Your task to perform on an android device: Add bose soundlink mini to the cart on ebay.com Image 0: 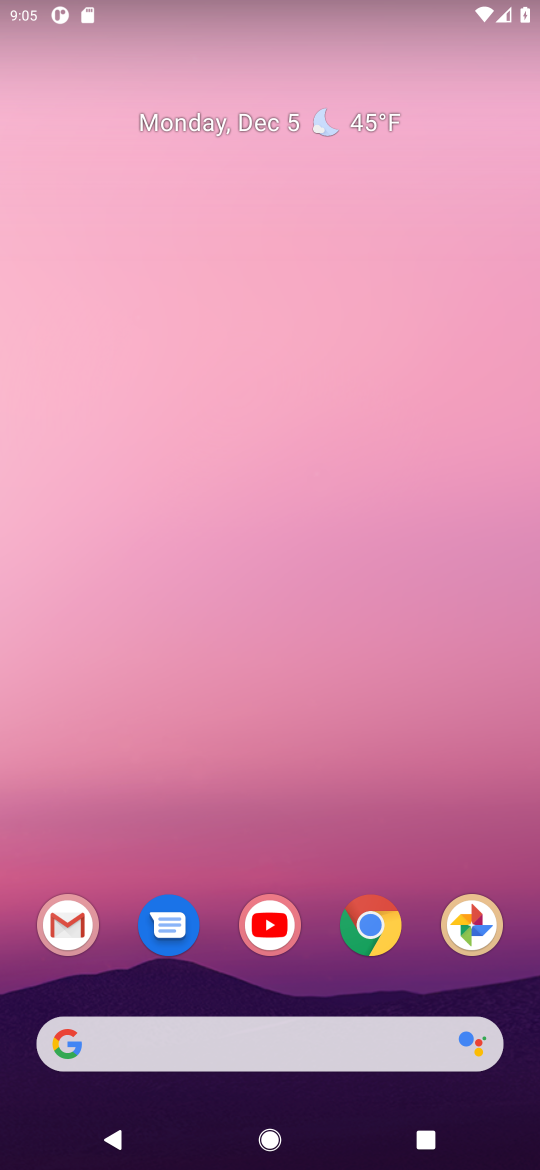
Step 0: click (369, 923)
Your task to perform on an android device: Add bose soundlink mini to the cart on ebay.com Image 1: 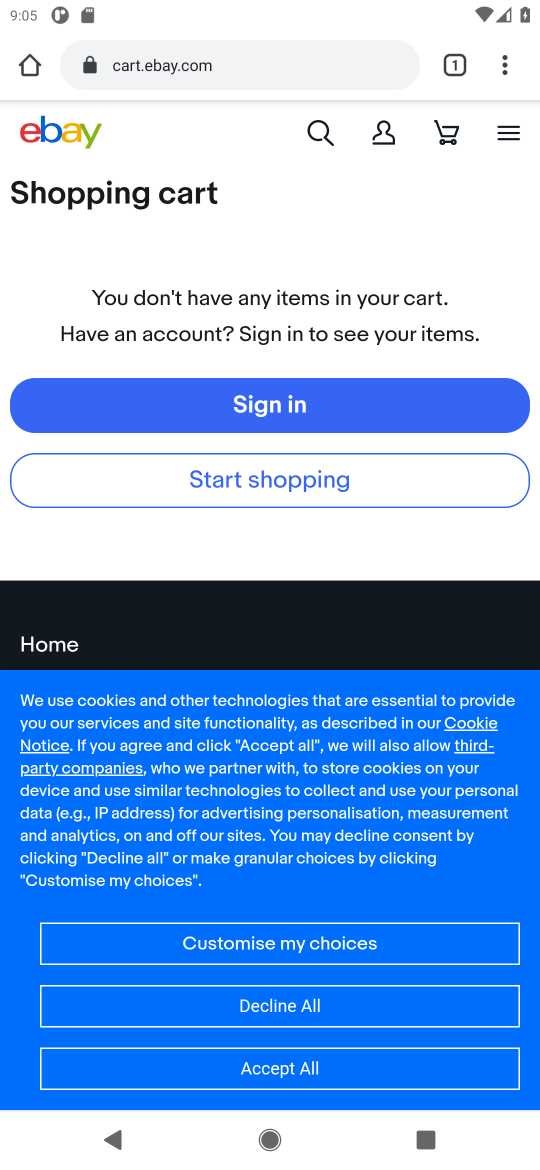
Step 1: click (318, 134)
Your task to perform on an android device: Add bose soundlink mini to the cart on ebay.com Image 2: 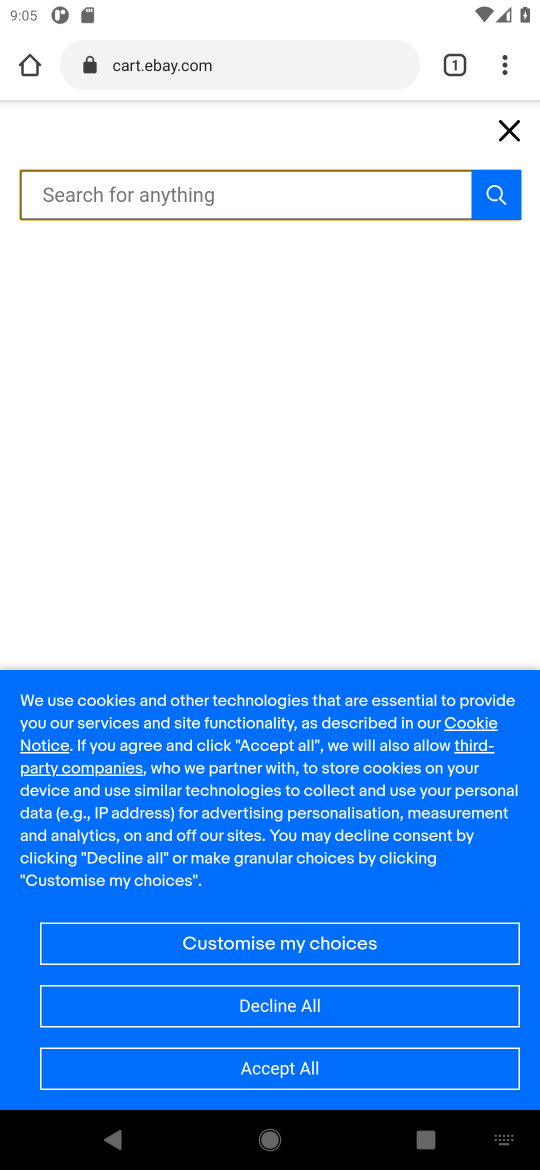
Step 2: type "bose soundlink mini"
Your task to perform on an android device: Add bose soundlink mini to the cart on ebay.com Image 3: 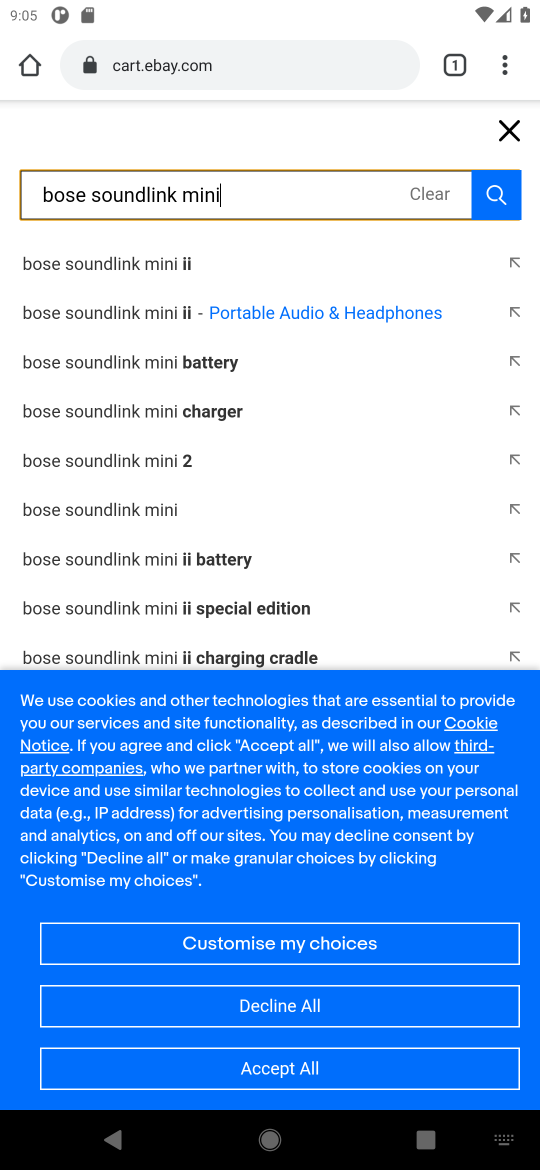
Step 3: click (112, 525)
Your task to perform on an android device: Add bose soundlink mini to the cart on ebay.com Image 4: 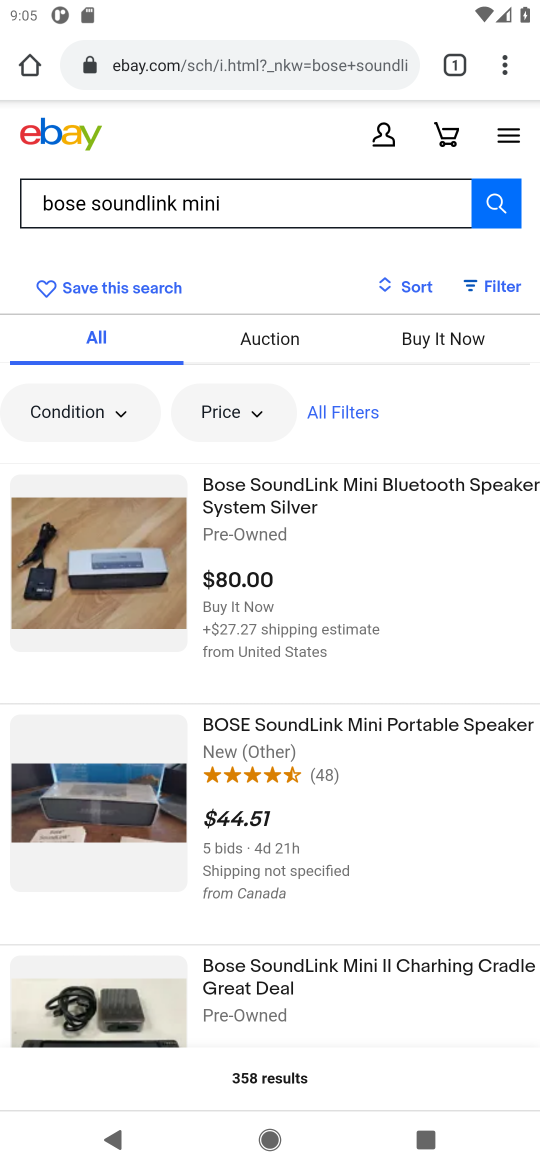
Step 4: click (224, 517)
Your task to perform on an android device: Add bose soundlink mini to the cart on ebay.com Image 5: 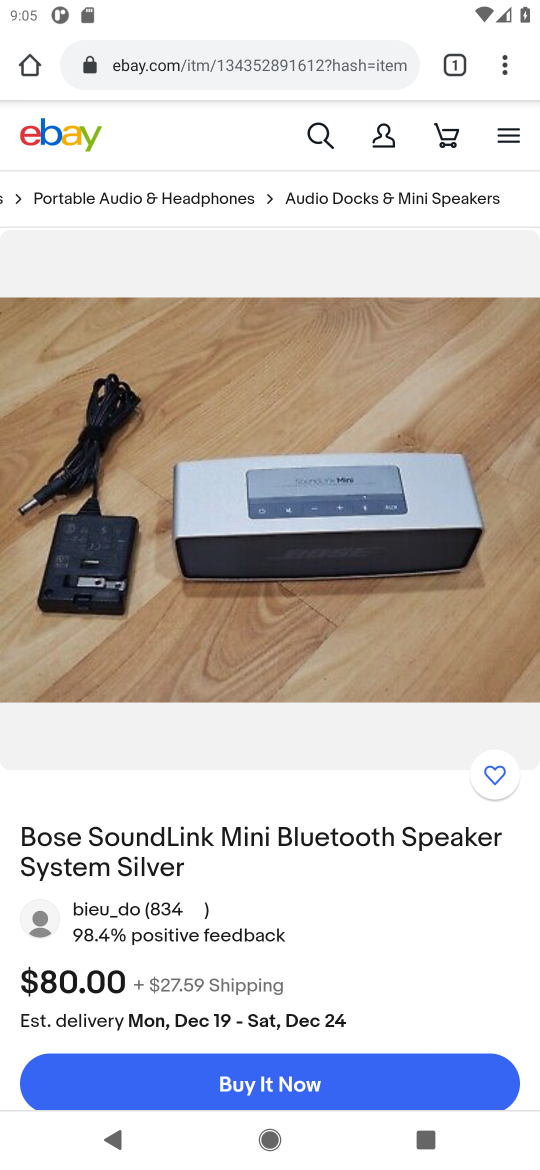
Step 5: drag from (272, 835) to (227, 455)
Your task to perform on an android device: Add bose soundlink mini to the cart on ebay.com Image 6: 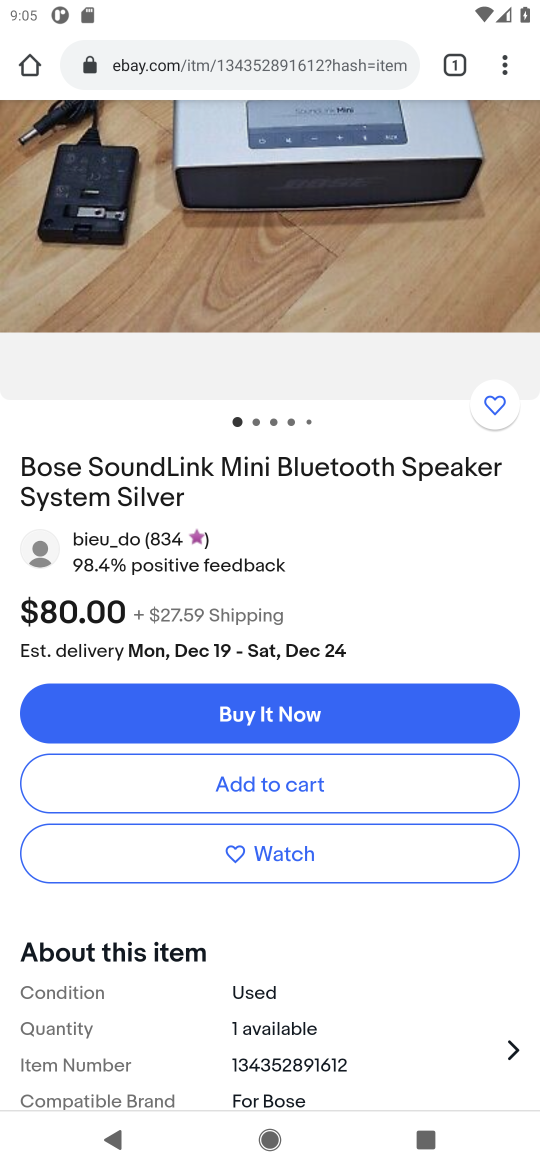
Step 6: click (252, 777)
Your task to perform on an android device: Add bose soundlink mini to the cart on ebay.com Image 7: 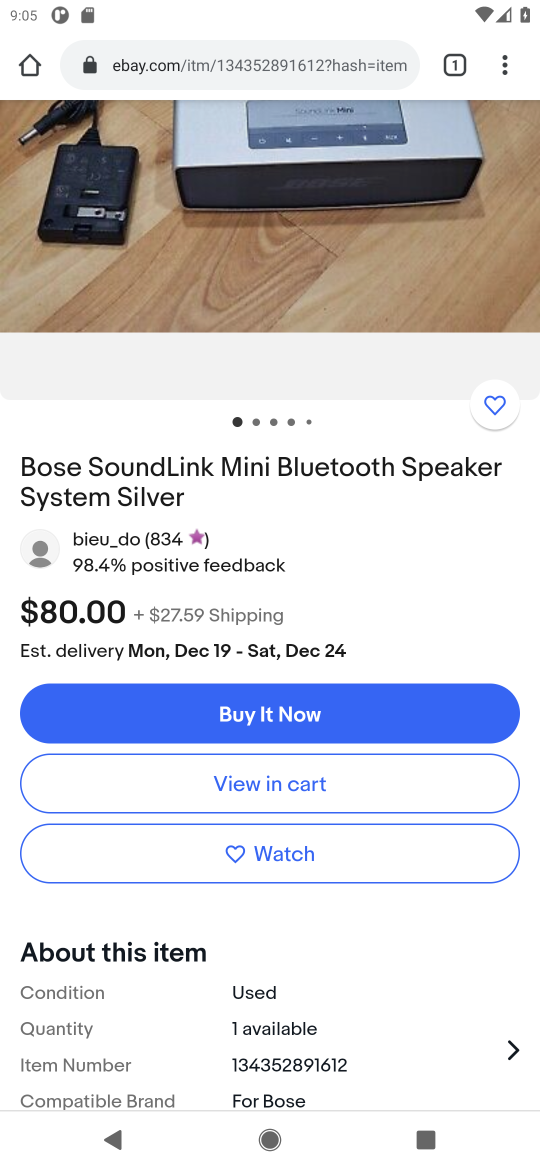
Step 7: task complete